Your task to perform on an android device: snooze an email in the gmail app Image 0: 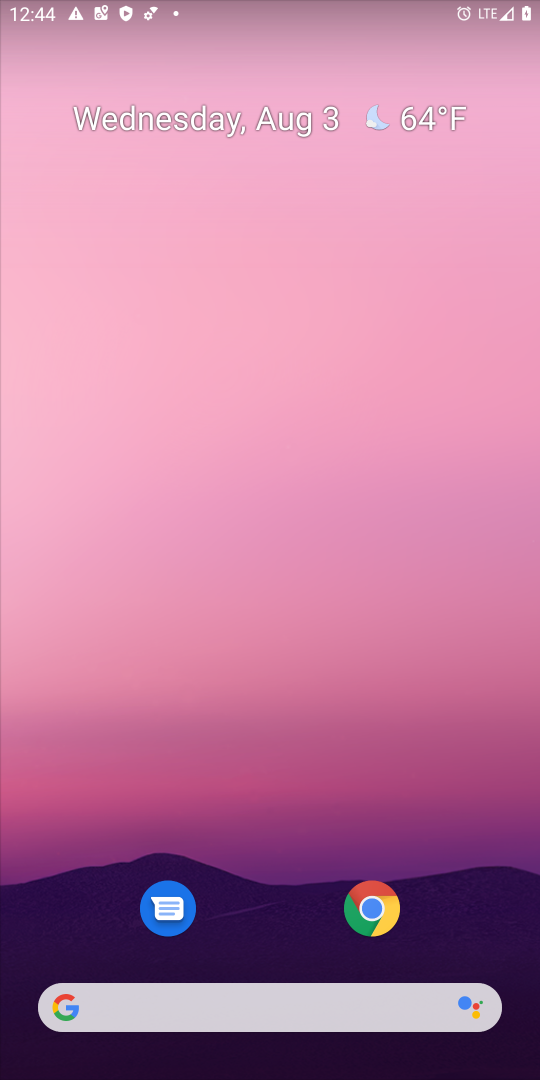
Step 0: drag from (285, 644) to (261, 172)
Your task to perform on an android device: snooze an email in the gmail app Image 1: 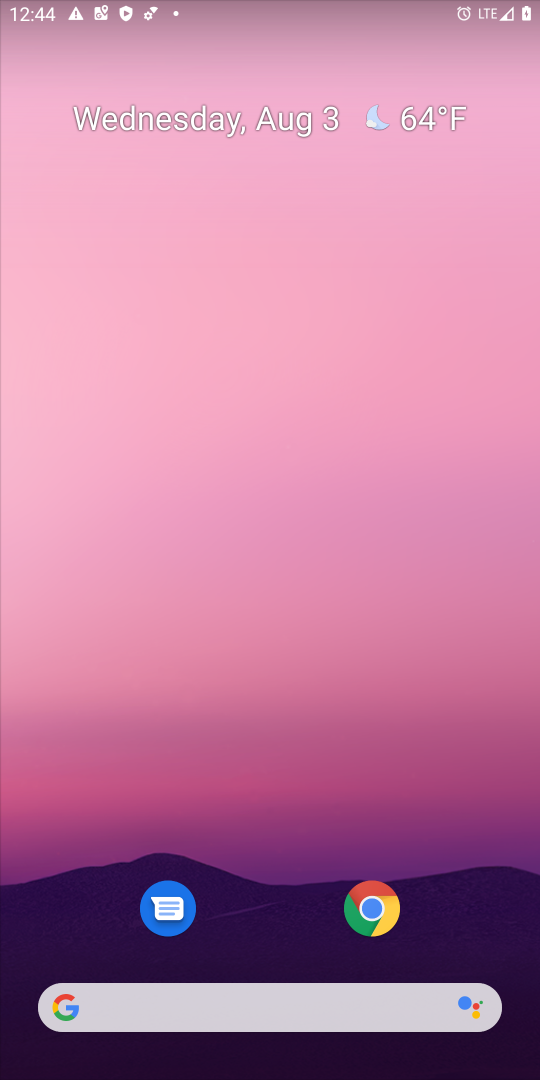
Step 1: drag from (260, 815) to (284, 1)
Your task to perform on an android device: snooze an email in the gmail app Image 2: 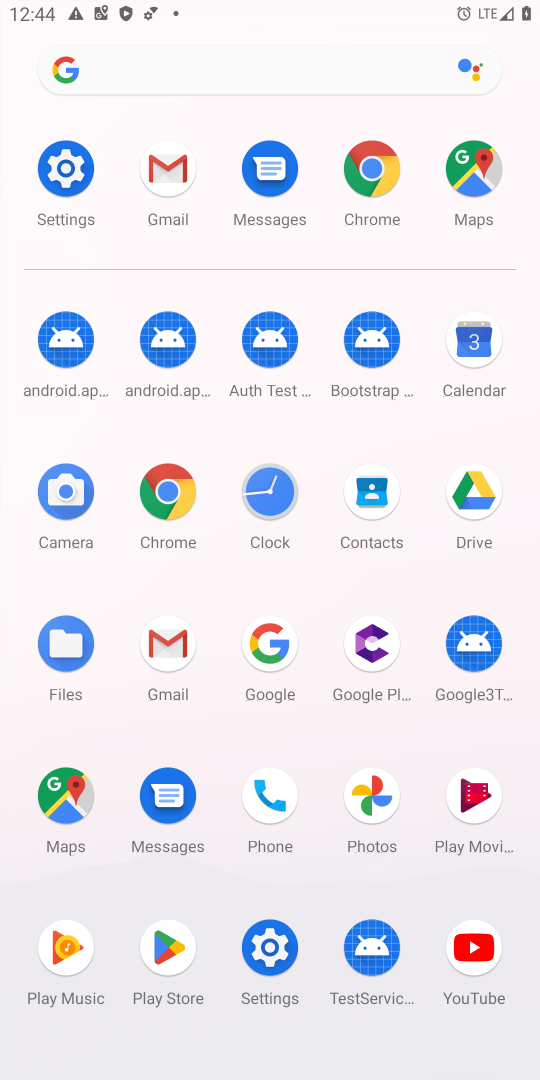
Step 2: click (175, 645)
Your task to perform on an android device: snooze an email in the gmail app Image 3: 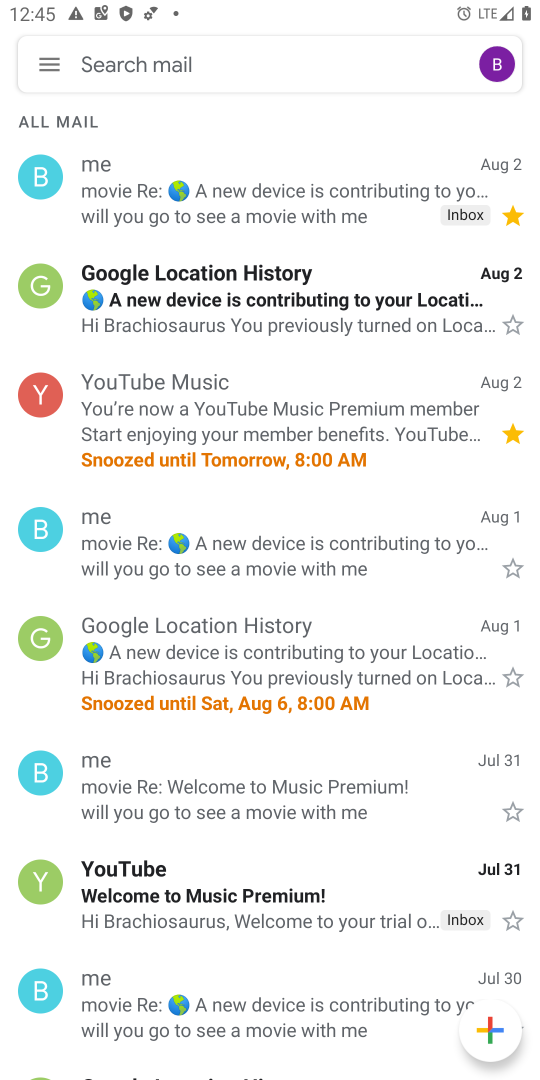
Step 3: click (168, 208)
Your task to perform on an android device: snooze an email in the gmail app Image 4: 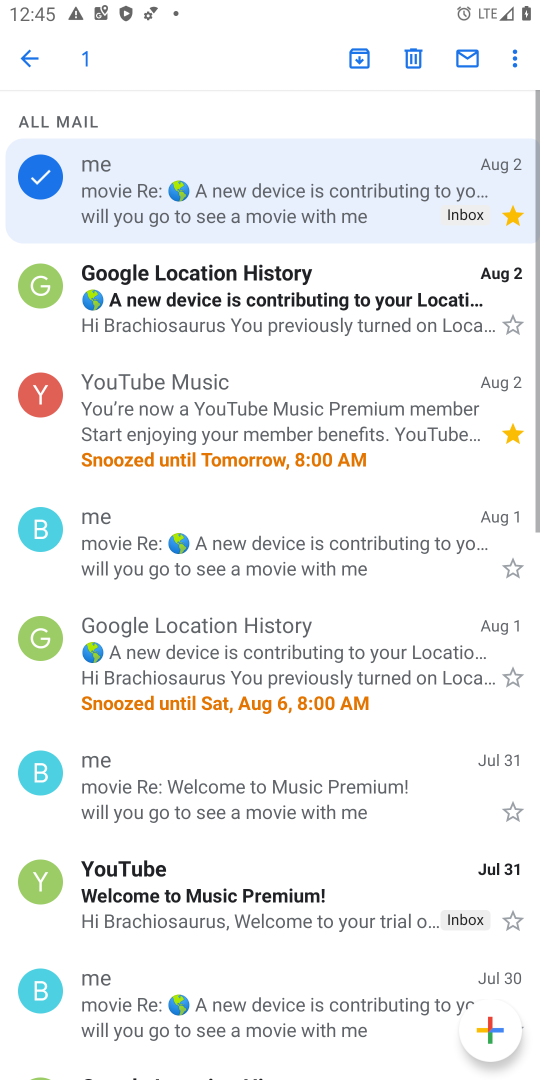
Step 4: click (504, 60)
Your task to perform on an android device: snooze an email in the gmail app Image 5: 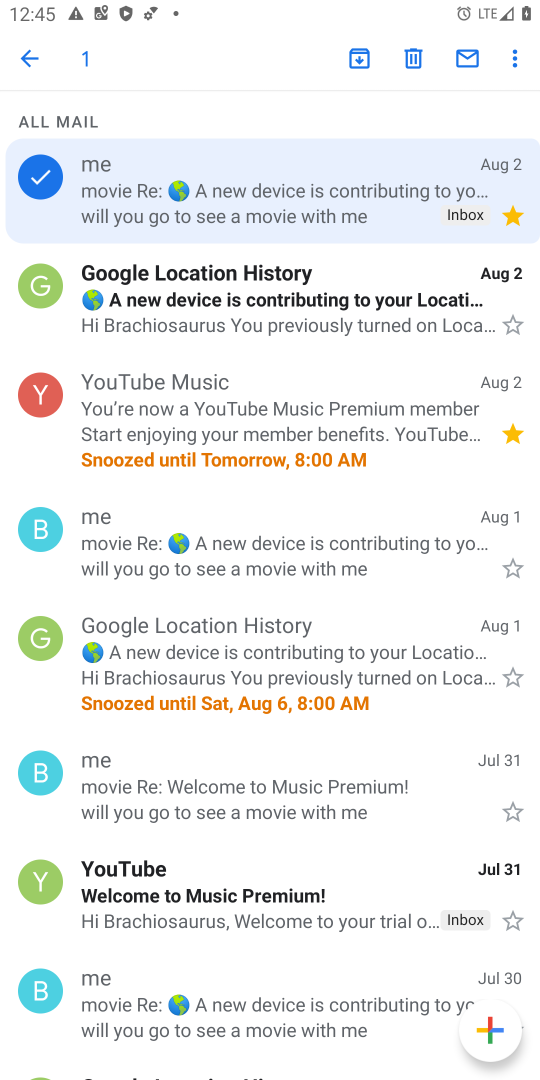
Step 5: click (512, 59)
Your task to perform on an android device: snooze an email in the gmail app Image 6: 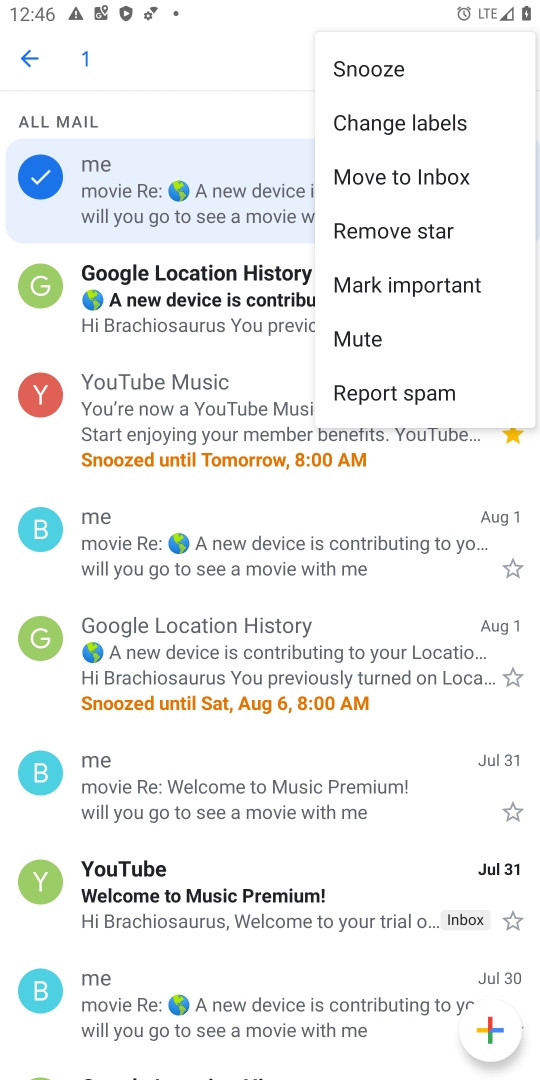
Step 6: click (366, 80)
Your task to perform on an android device: snooze an email in the gmail app Image 7: 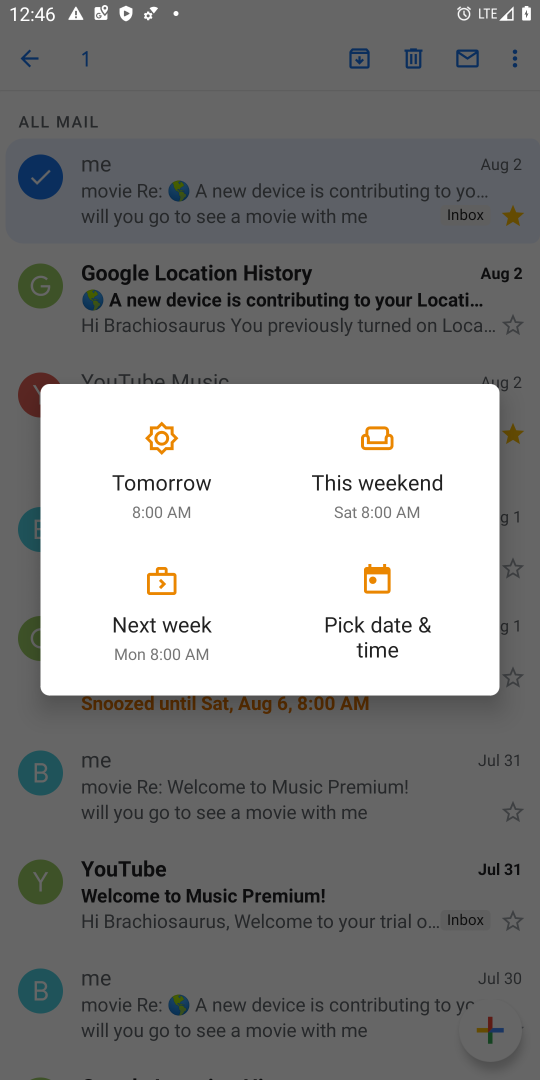
Step 7: click (155, 591)
Your task to perform on an android device: snooze an email in the gmail app Image 8: 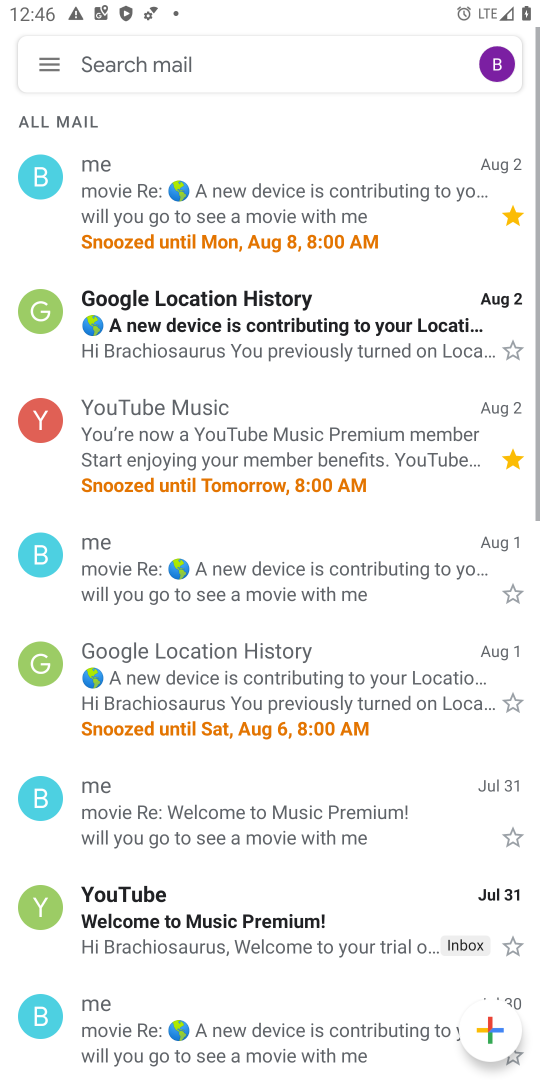
Step 8: task complete